Your task to perform on an android device: turn on wifi Image 0: 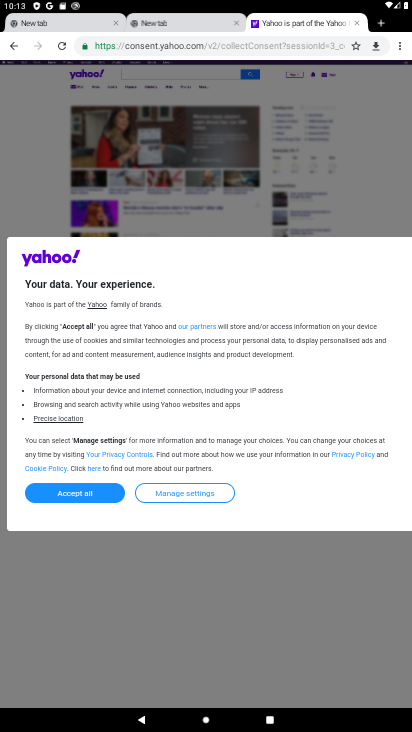
Step 0: press home button
Your task to perform on an android device: turn on wifi Image 1: 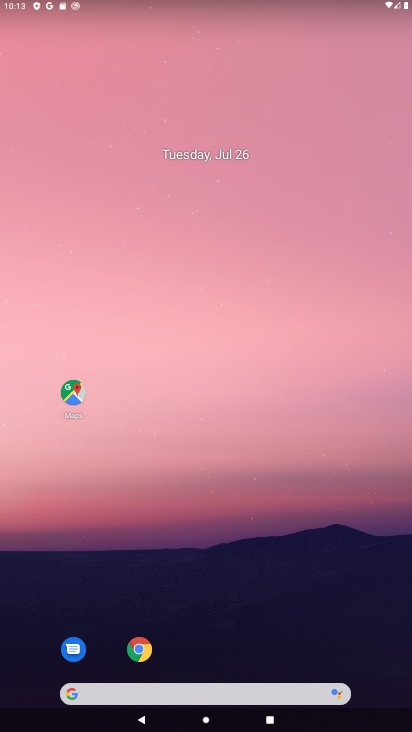
Step 1: drag from (219, 685) to (219, 202)
Your task to perform on an android device: turn on wifi Image 2: 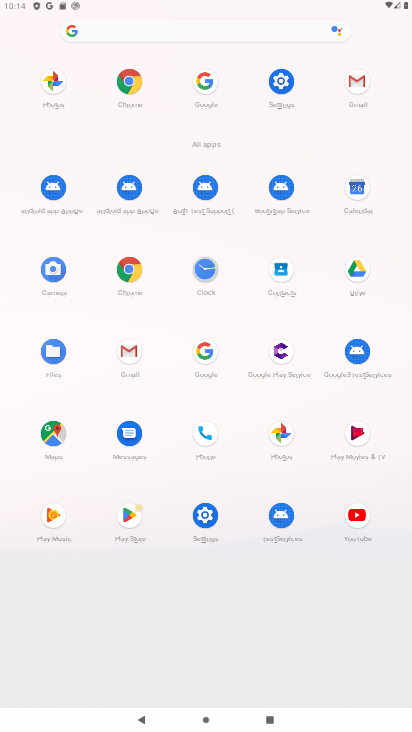
Step 2: click (281, 83)
Your task to perform on an android device: turn on wifi Image 3: 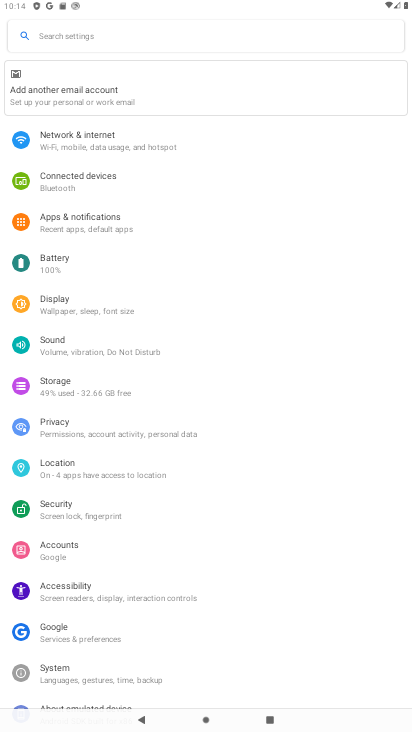
Step 3: click (110, 142)
Your task to perform on an android device: turn on wifi Image 4: 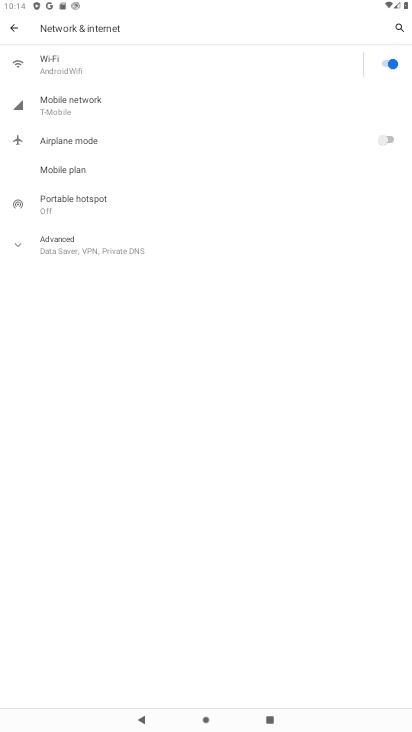
Step 4: task complete